Your task to perform on an android device: What's on my calendar tomorrow? Image 0: 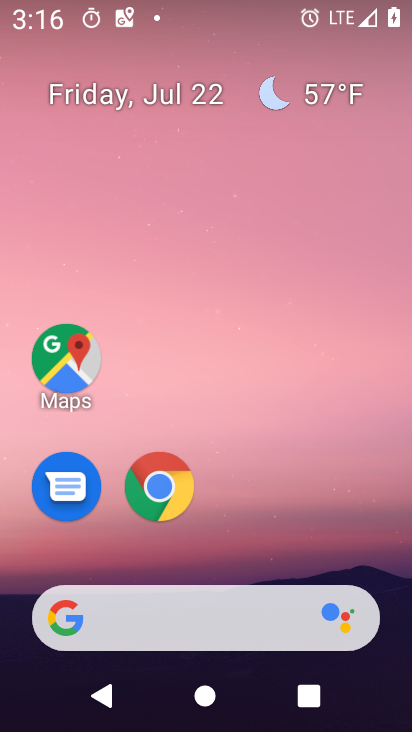
Step 0: press home button
Your task to perform on an android device: What's on my calendar tomorrow? Image 1: 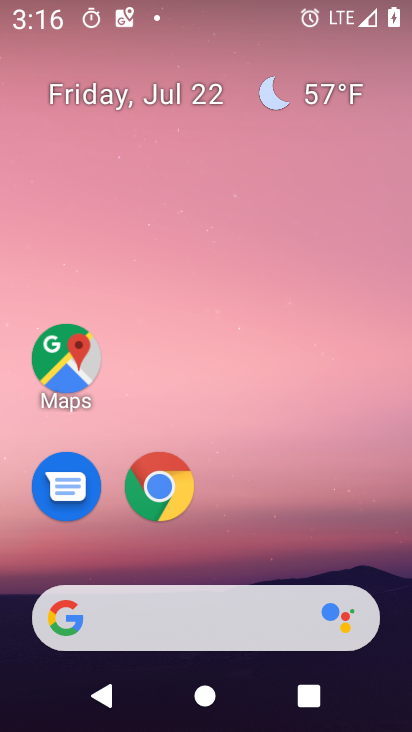
Step 1: drag from (349, 535) to (357, 110)
Your task to perform on an android device: What's on my calendar tomorrow? Image 2: 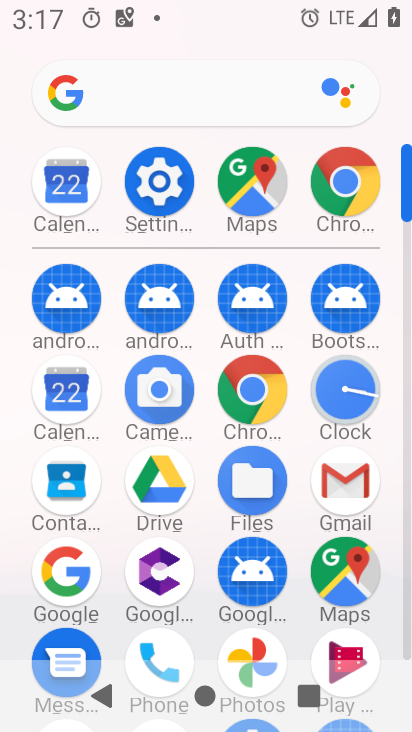
Step 2: click (56, 403)
Your task to perform on an android device: What's on my calendar tomorrow? Image 3: 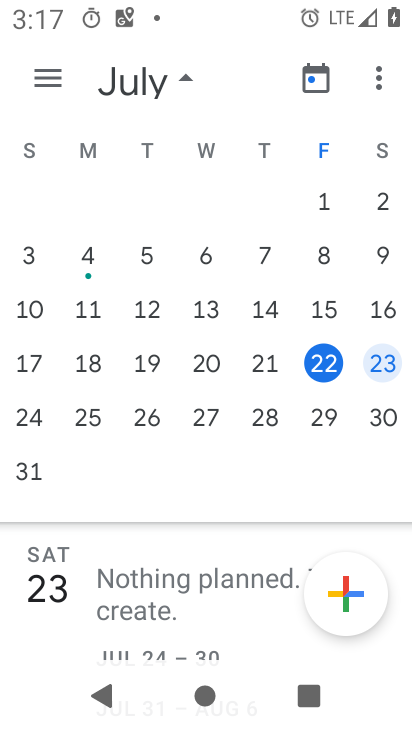
Step 3: click (380, 358)
Your task to perform on an android device: What's on my calendar tomorrow? Image 4: 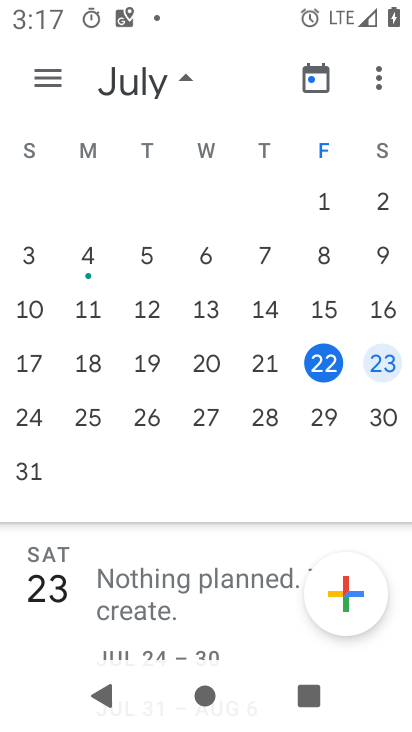
Step 4: task complete